Your task to perform on an android device: toggle show notifications on the lock screen Image 0: 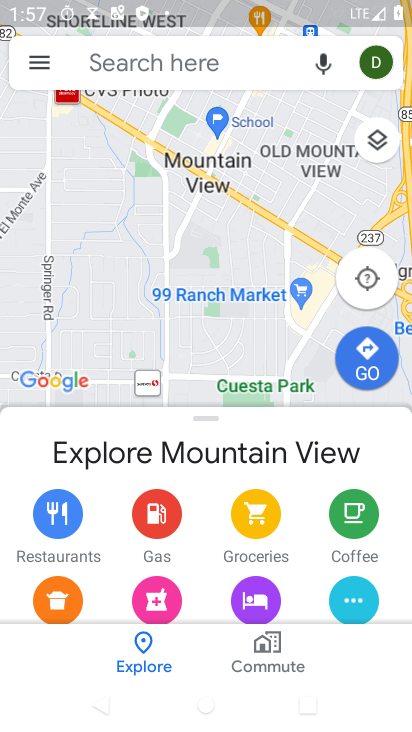
Step 0: press home button
Your task to perform on an android device: toggle show notifications on the lock screen Image 1: 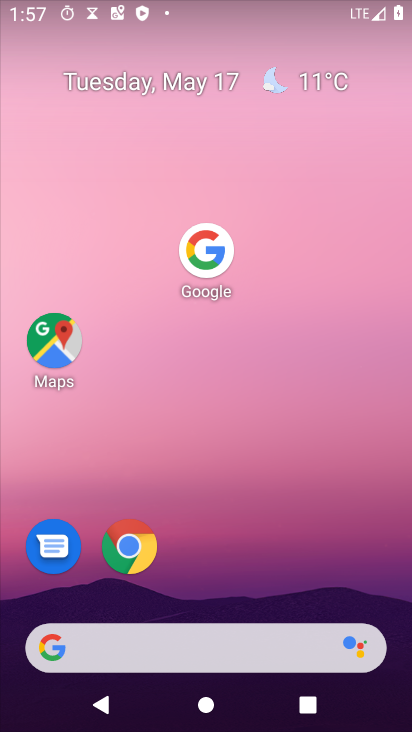
Step 1: drag from (159, 617) to (265, 289)
Your task to perform on an android device: toggle show notifications on the lock screen Image 2: 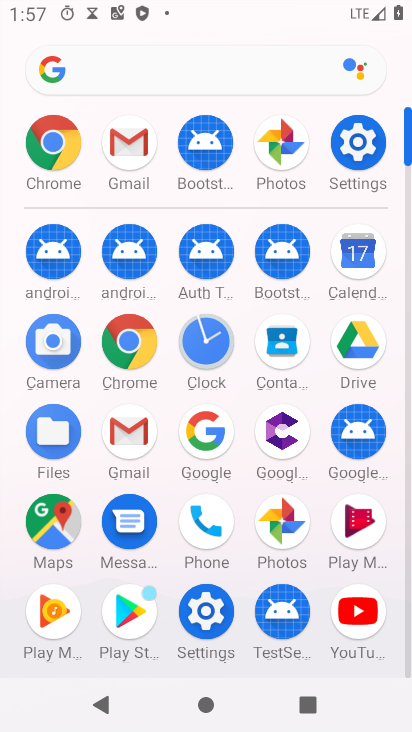
Step 2: click (351, 159)
Your task to perform on an android device: toggle show notifications on the lock screen Image 3: 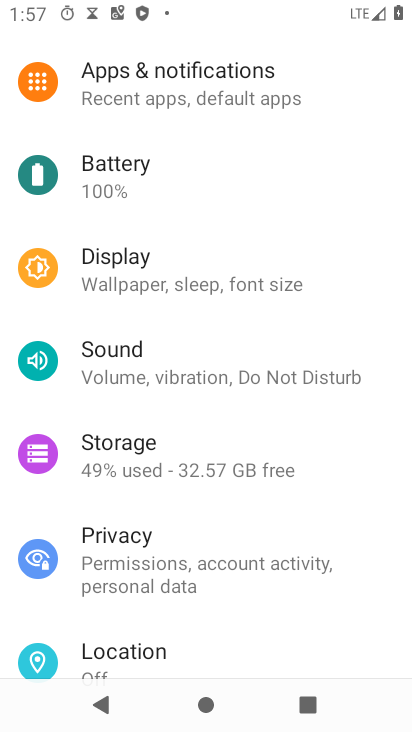
Step 3: click (211, 78)
Your task to perform on an android device: toggle show notifications on the lock screen Image 4: 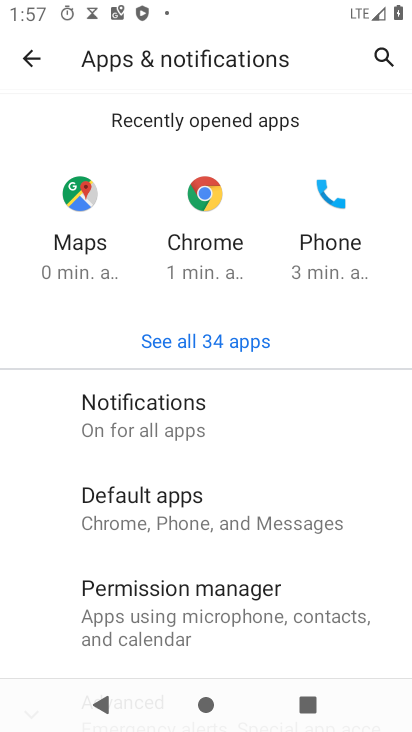
Step 4: click (179, 397)
Your task to perform on an android device: toggle show notifications on the lock screen Image 5: 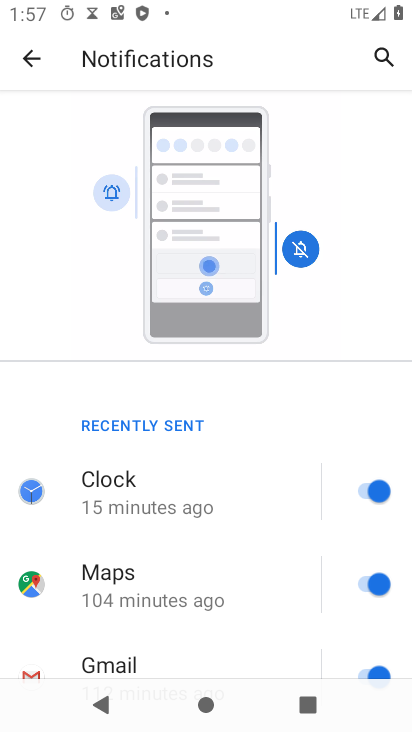
Step 5: drag from (164, 628) to (337, 165)
Your task to perform on an android device: toggle show notifications on the lock screen Image 6: 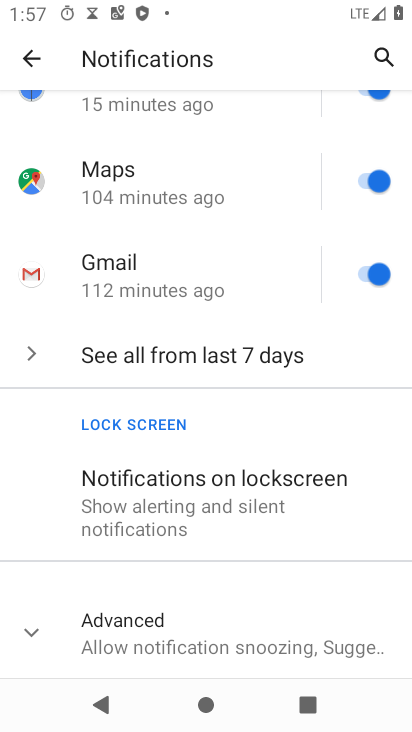
Step 6: click (225, 481)
Your task to perform on an android device: toggle show notifications on the lock screen Image 7: 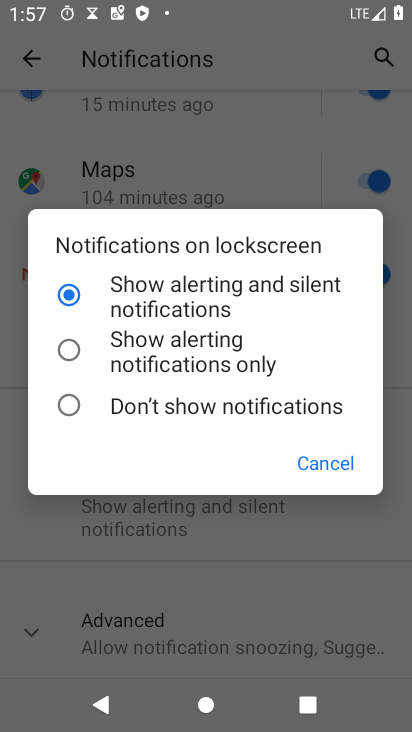
Step 7: click (66, 401)
Your task to perform on an android device: toggle show notifications on the lock screen Image 8: 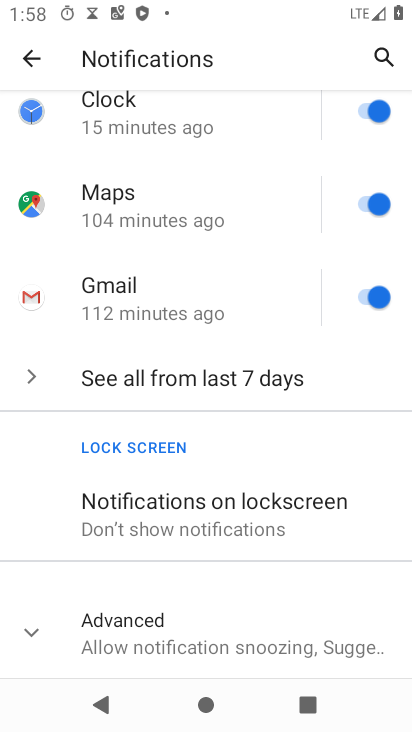
Step 8: task complete